Your task to perform on an android device: move a message to another label in the gmail app Image 0: 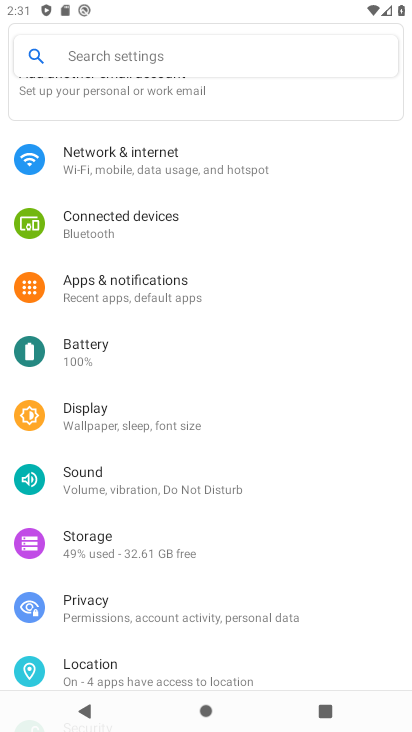
Step 0: press home button
Your task to perform on an android device: move a message to another label in the gmail app Image 1: 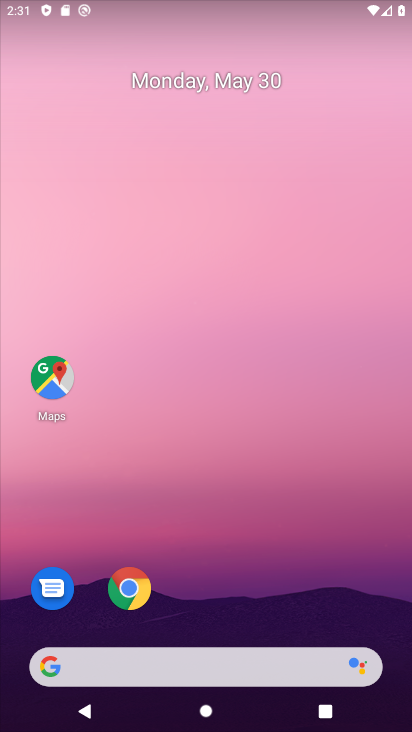
Step 1: drag from (182, 594) to (200, 208)
Your task to perform on an android device: move a message to another label in the gmail app Image 2: 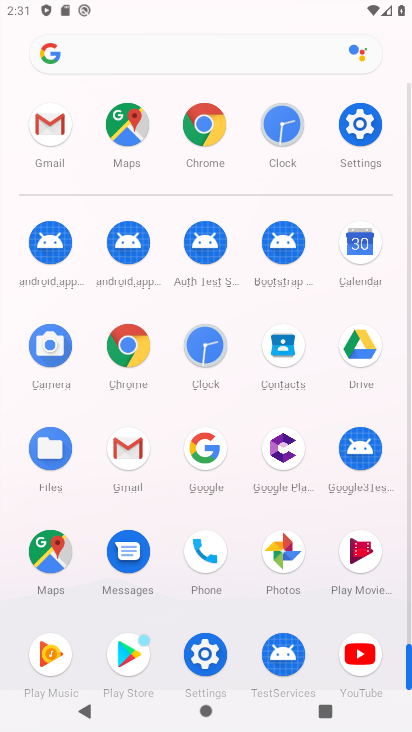
Step 2: click (123, 447)
Your task to perform on an android device: move a message to another label in the gmail app Image 3: 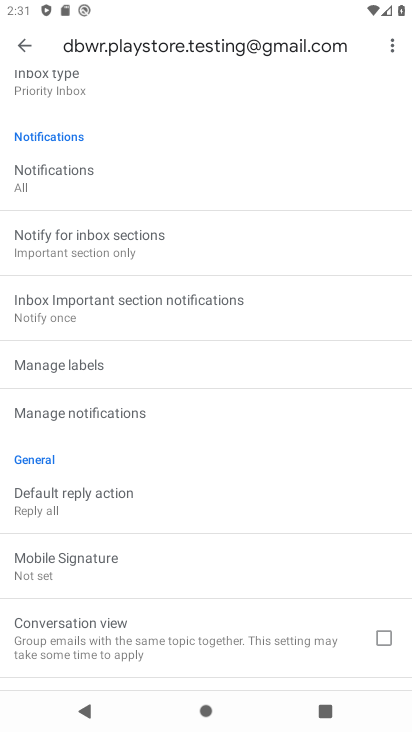
Step 3: click (26, 41)
Your task to perform on an android device: move a message to another label in the gmail app Image 4: 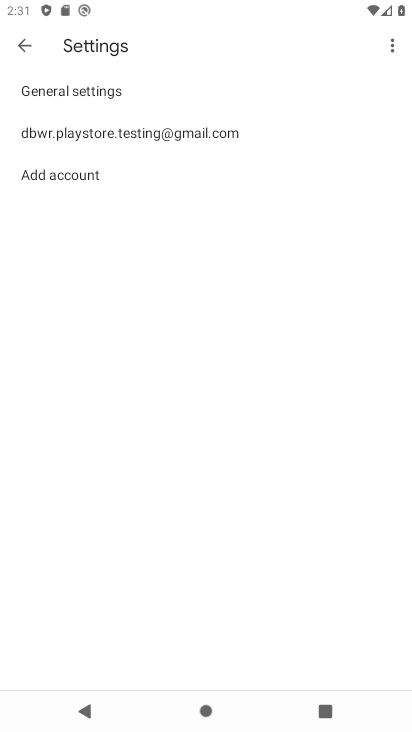
Step 4: click (26, 41)
Your task to perform on an android device: move a message to another label in the gmail app Image 5: 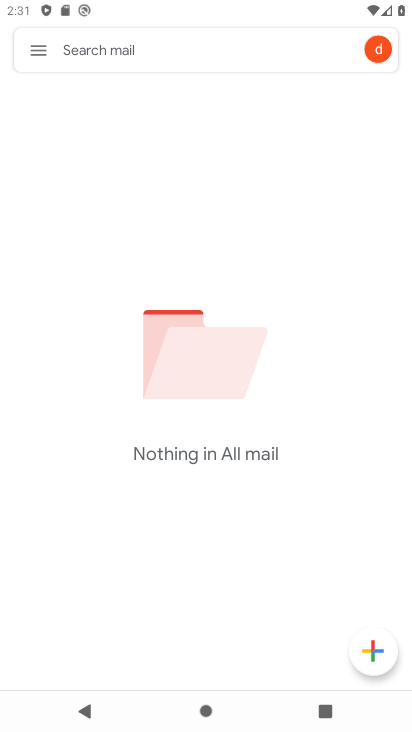
Step 5: click (38, 48)
Your task to perform on an android device: move a message to another label in the gmail app Image 6: 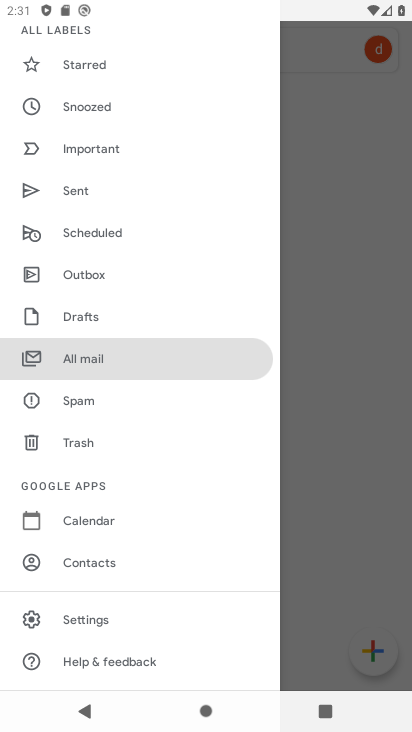
Step 6: task complete